Your task to perform on an android device: uninstall "Airtel Thanks" Image 0: 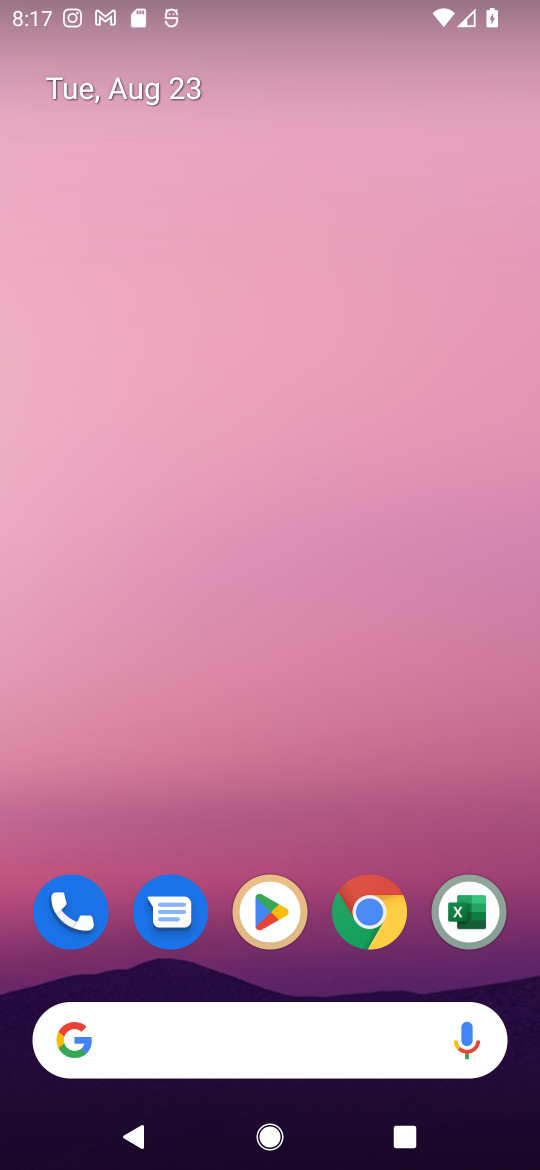
Step 0: click (270, 922)
Your task to perform on an android device: uninstall "Airtel Thanks" Image 1: 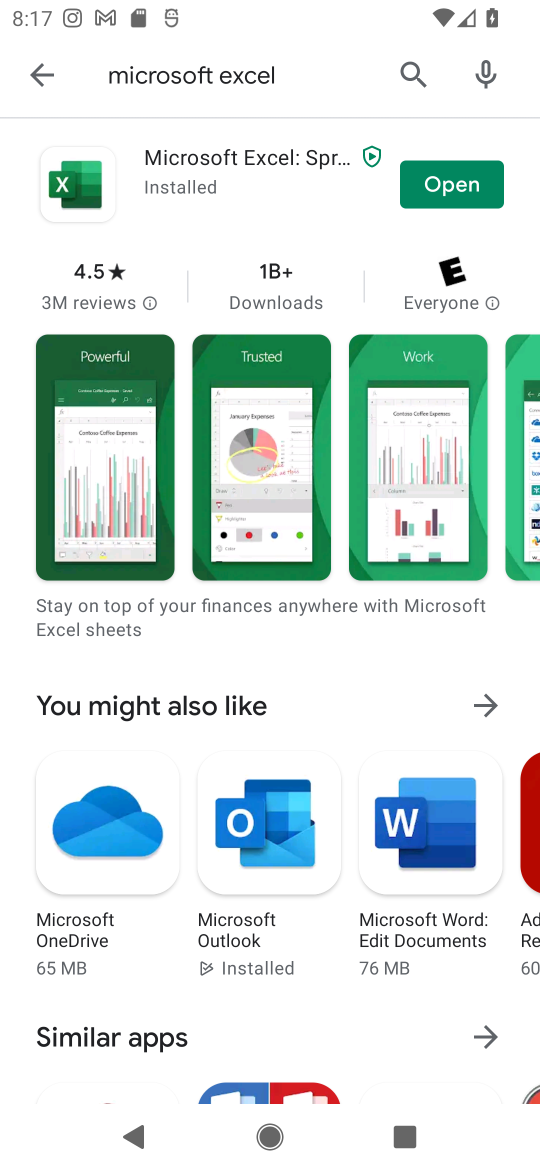
Step 1: click (408, 69)
Your task to perform on an android device: uninstall "Airtel Thanks" Image 2: 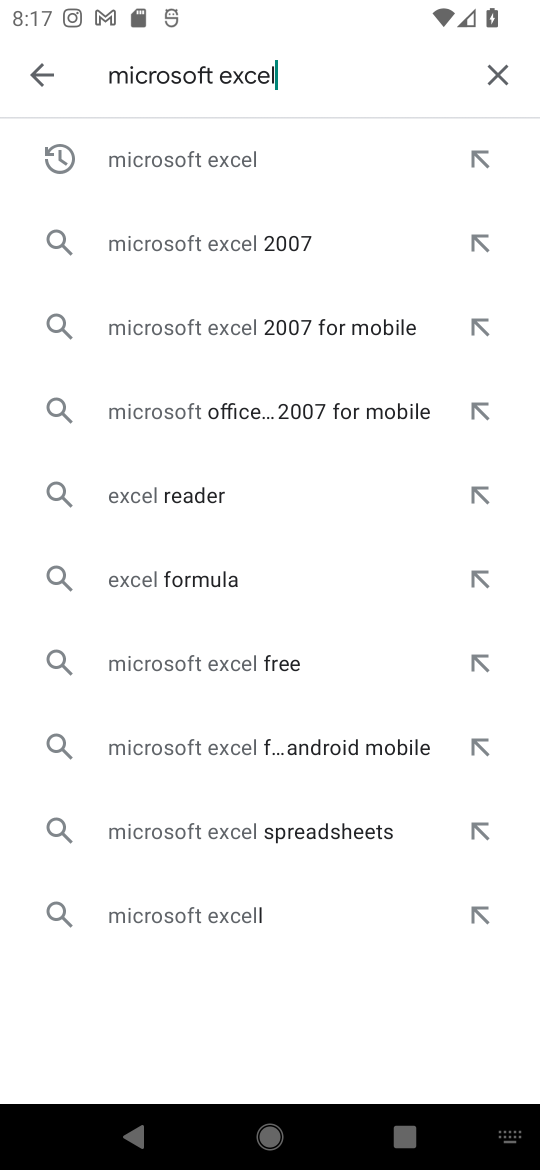
Step 2: click (494, 72)
Your task to perform on an android device: uninstall "Airtel Thanks" Image 3: 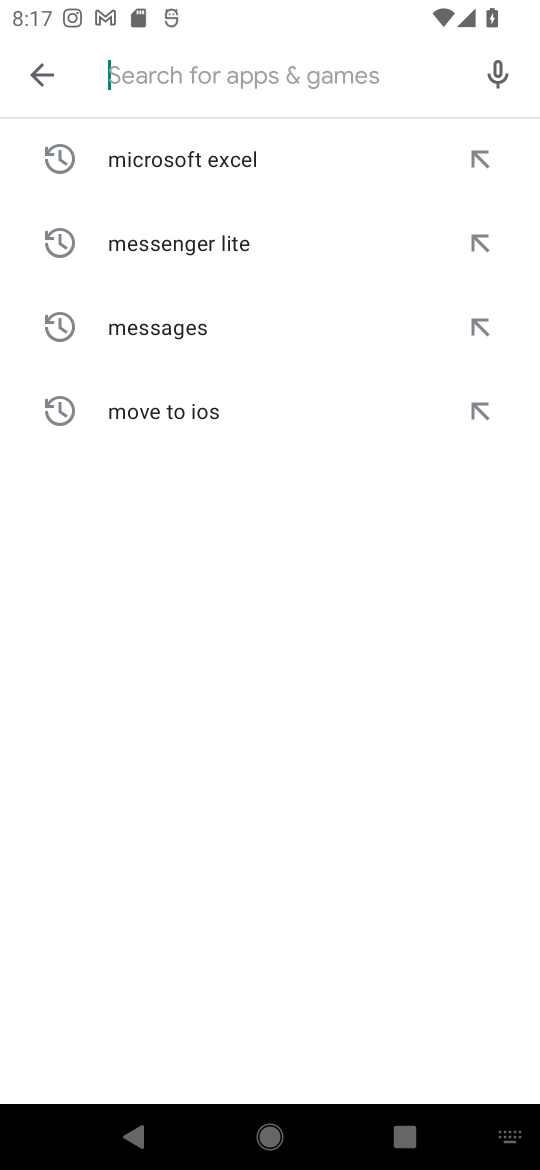
Step 3: type "Airtel Thanks"
Your task to perform on an android device: uninstall "Airtel Thanks" Image 4: 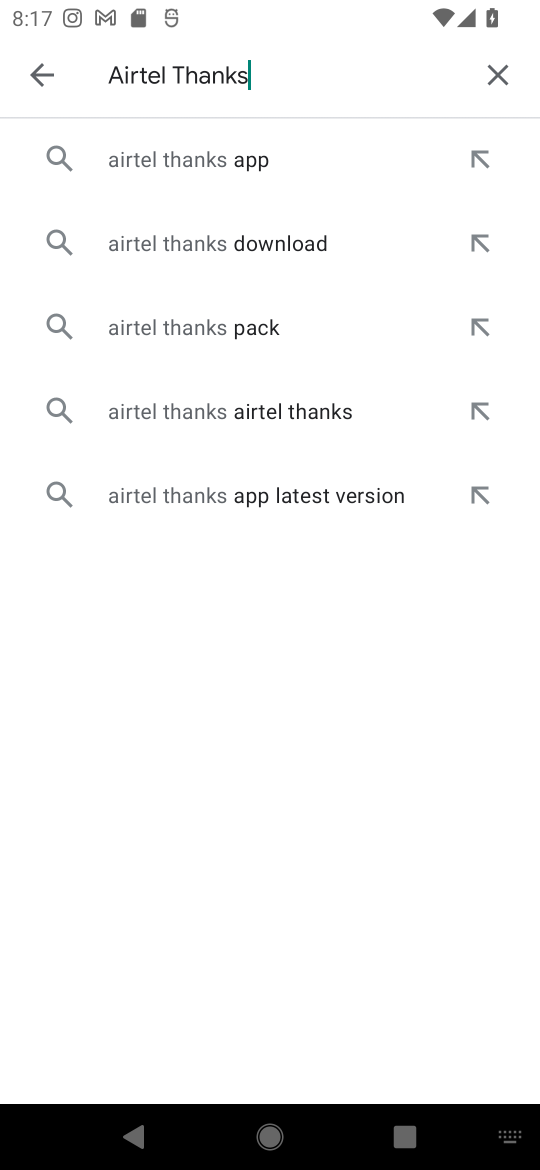
Step 4: click (204, 160)
Your task to perform on an android device: uninstall "Airtel Thanks" Image 5: 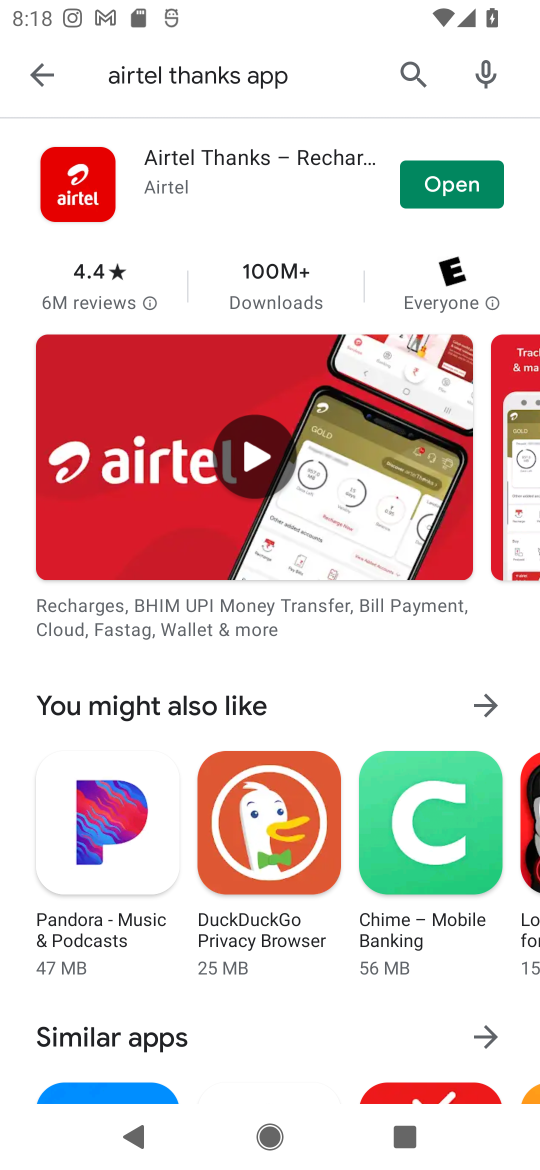
Step 5: click (244, 156)
Your task to perform on an android device: uninstall "Airtel Thanks" Image 6: 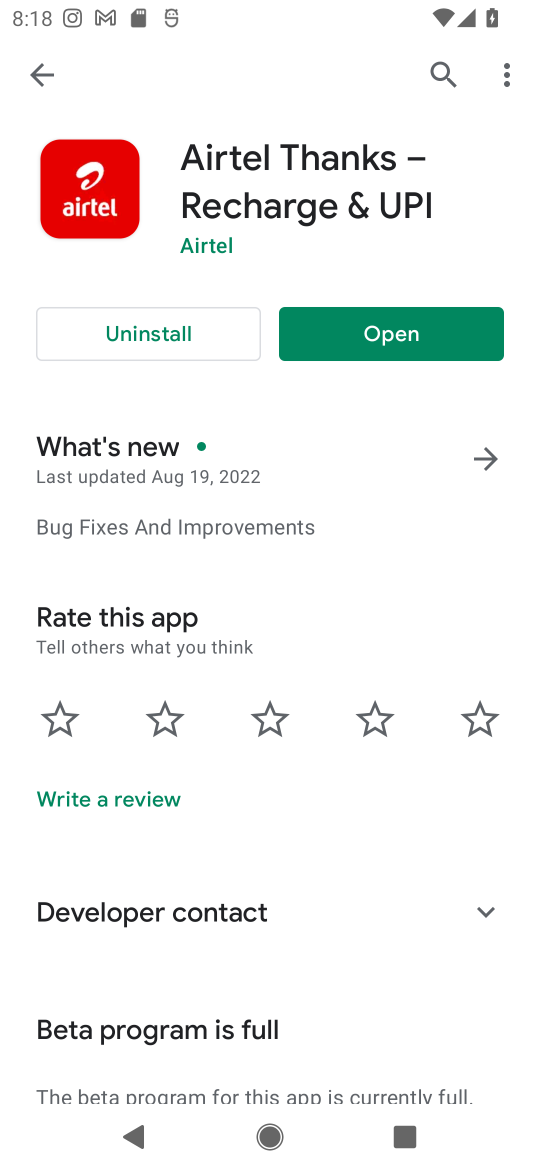
Step 6: click (180, 338)
Your task to perform on an android device: uninstall "Airtel Thanks" Image 7: 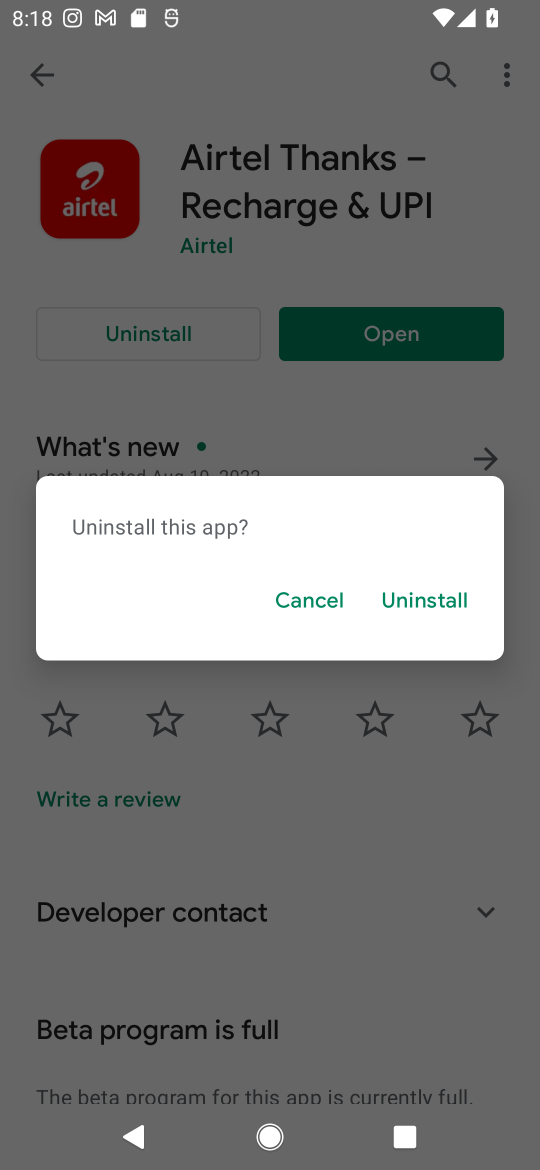
Step 7: click (418, 603)
Your task to perform on an android device: uninstall "Airtel Thanks" Image 8: 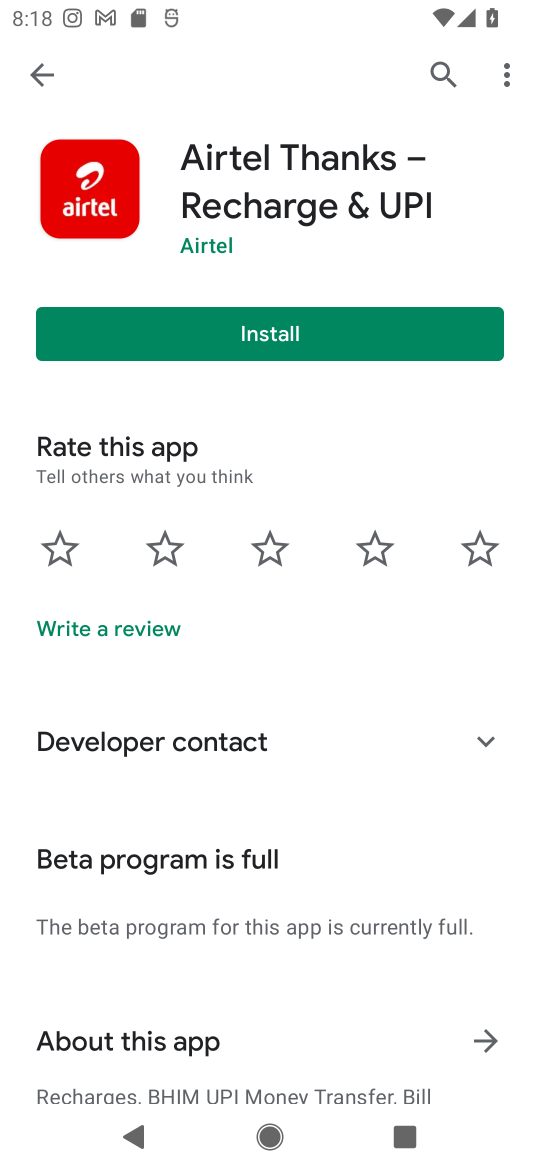
Step 8: task complete